Your task to perform on an android device: open chrome and create a bookmark for the current page Image 0: 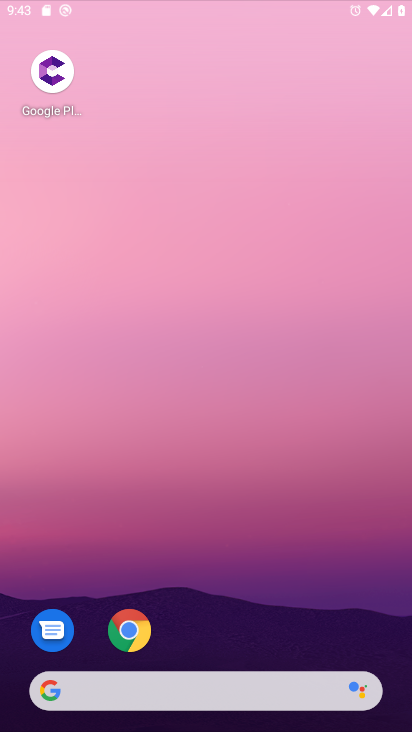
Step 0: press back button
Your task to perform on an android device: open chrome and create a bookmark for the current page Image 1: 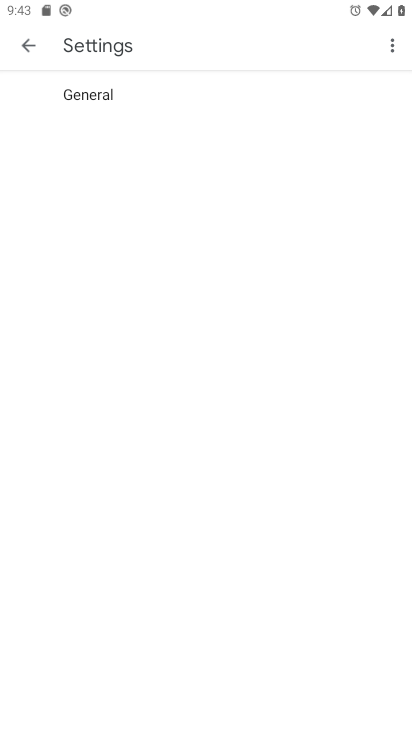
Step 1: press home button
Your task to perform on an android device: open chrome and create a bookmark for the current page Image 2: 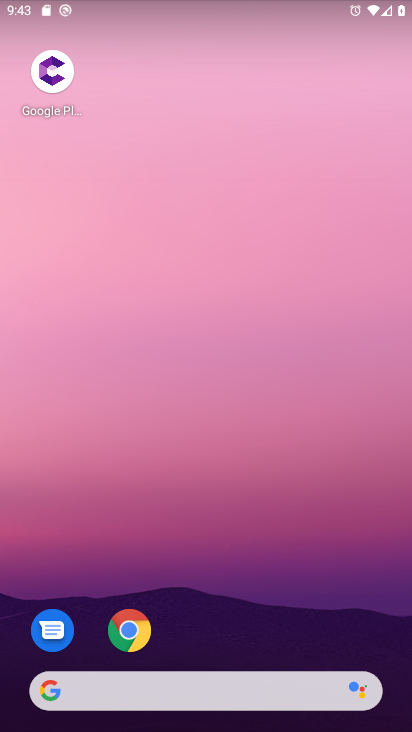
Step 2: drag from (206, 685) to (231, 4)
Your task to perform on an android device: open chrome and create a bookmark for the current page Image 3: 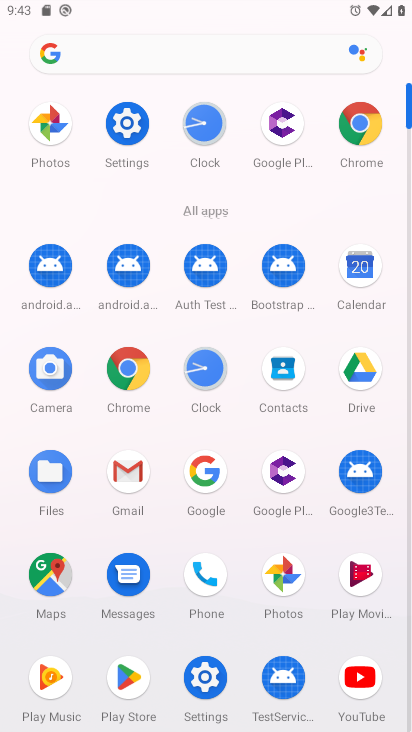
Step 3: click (350, 135)
Your task to perform on an android device: open chrome and create a bookmark for the current page Image 4: 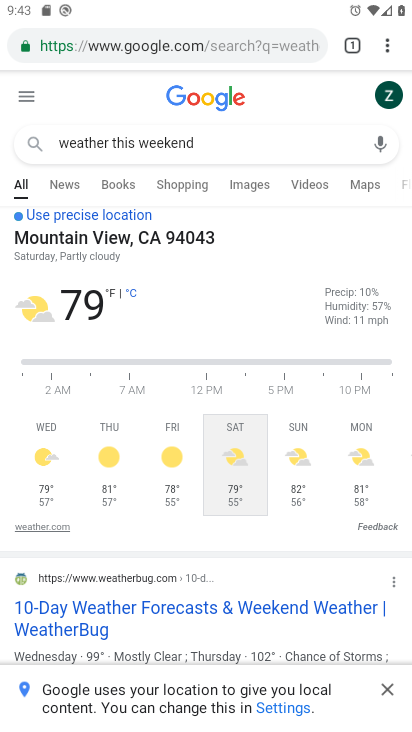
Step 4: task complete